Your task to perform on an android device: toggle priority inbox in the gmail app Image 0: 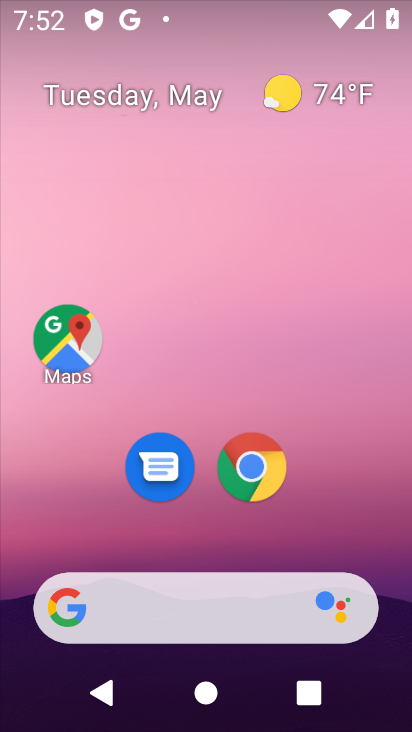
Step 0: drag from (325, 640) to (295, 89)
Your task to perform on an android device: toggle priority inbox in the gmail app Image 1: 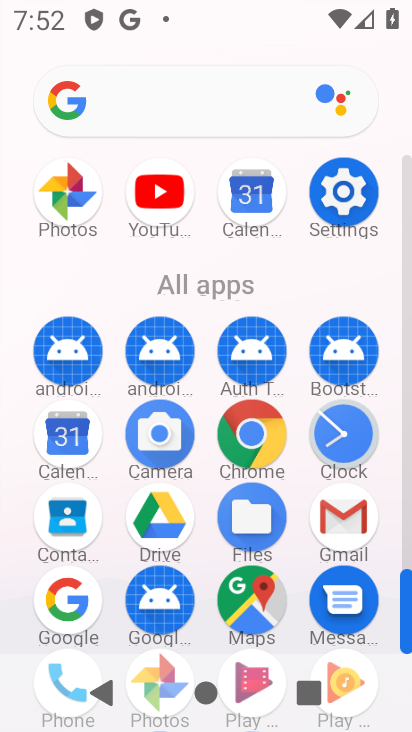
Step 1: drag from (273, 597) to (307, 217)
Your task to perform on an android device: toggle priority inbox in the gmail app Image 2: 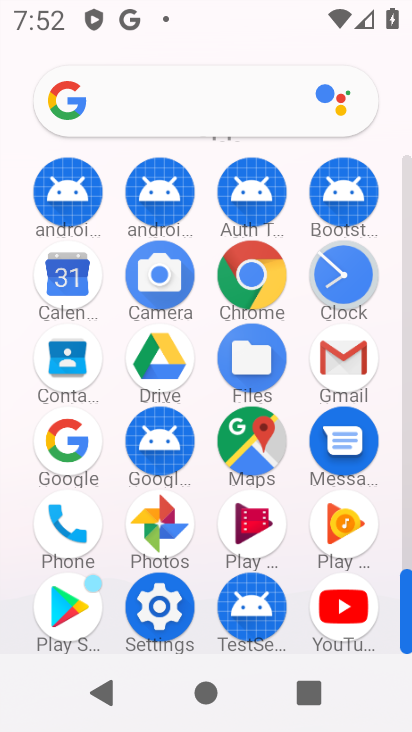
Step 2: click (364, 360)
Your task to perform on an android device: toggle priority inbox in the gmail app Image 3: 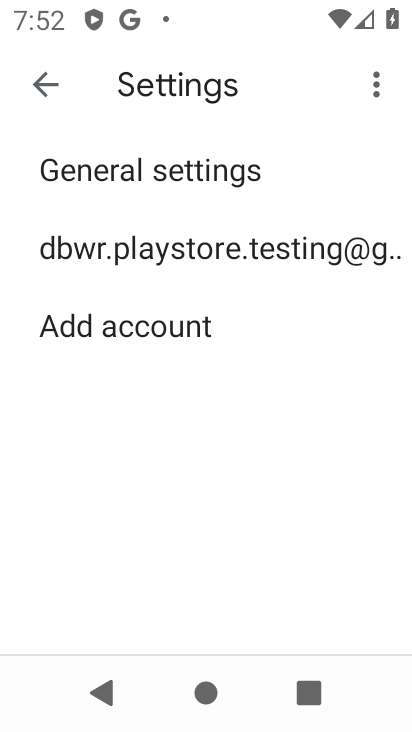
Step 3: click (209, 264)
Your task to perform on an android device: toggle priority inbox in the gmail app Image 4: 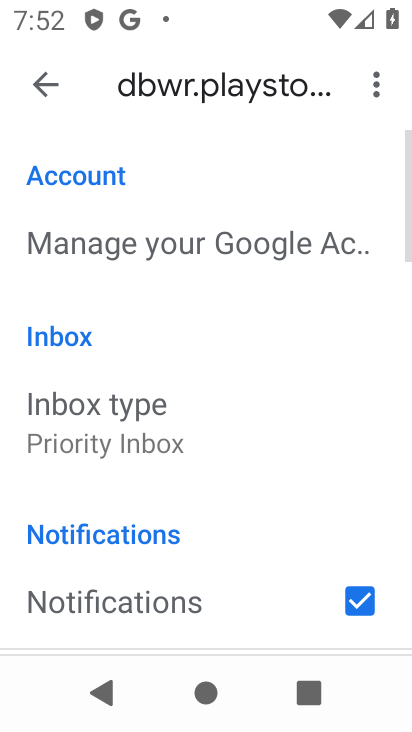
Step 4: drag from (275, 524) to (282, 353)
Your task to perform on an android device: toggle priority inbox in the gmail app Image 5: 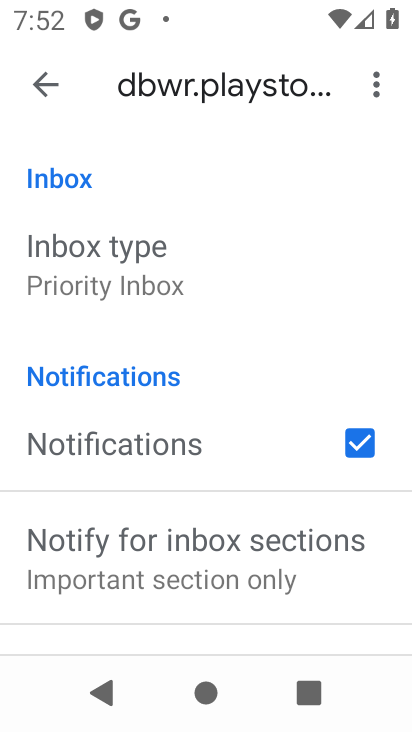
Step 5: click (238, 272)
Your task to perform on an android device: toggle priority inbox in the gmail app Image 6: 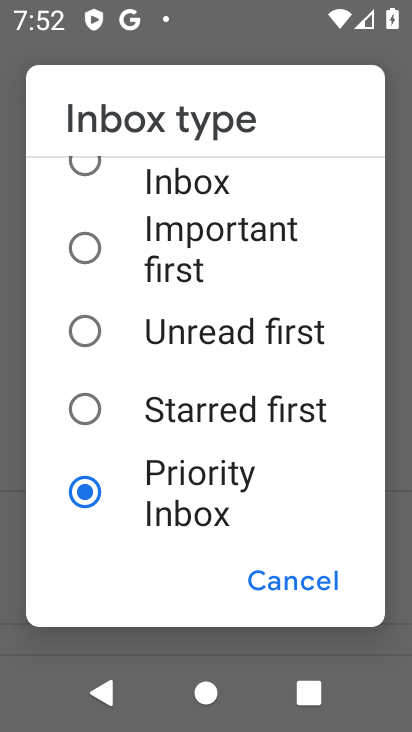
Step 6: task complete